Your task to perform on an android device: Open the calendar and show me this week's events? Image 0: 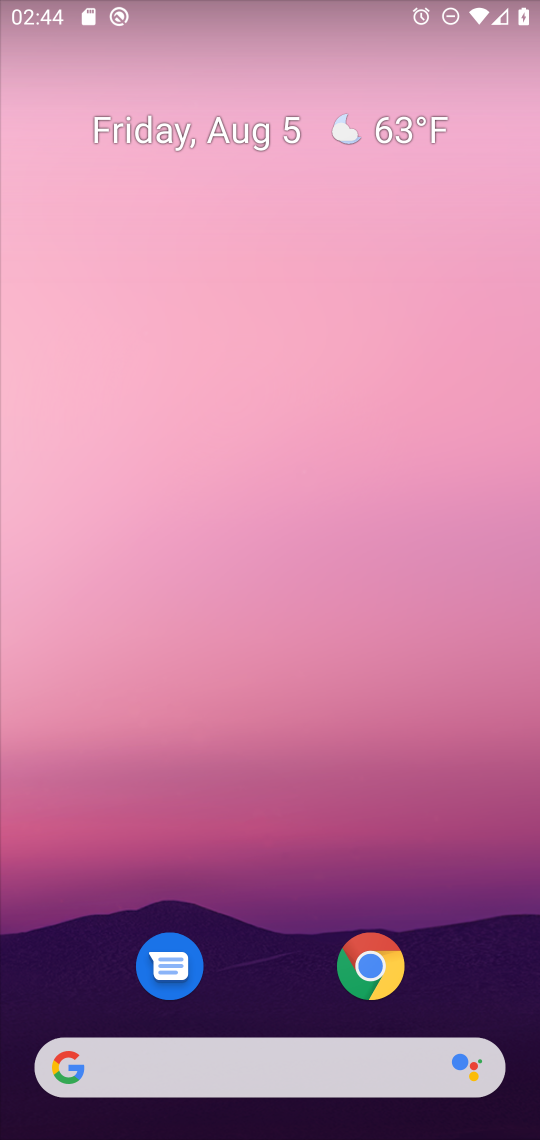
Step 0: drag from (313, 693) to (391, 101)
Your task to perform on an android device: Open the calendar and show me this week's events? Image 1: 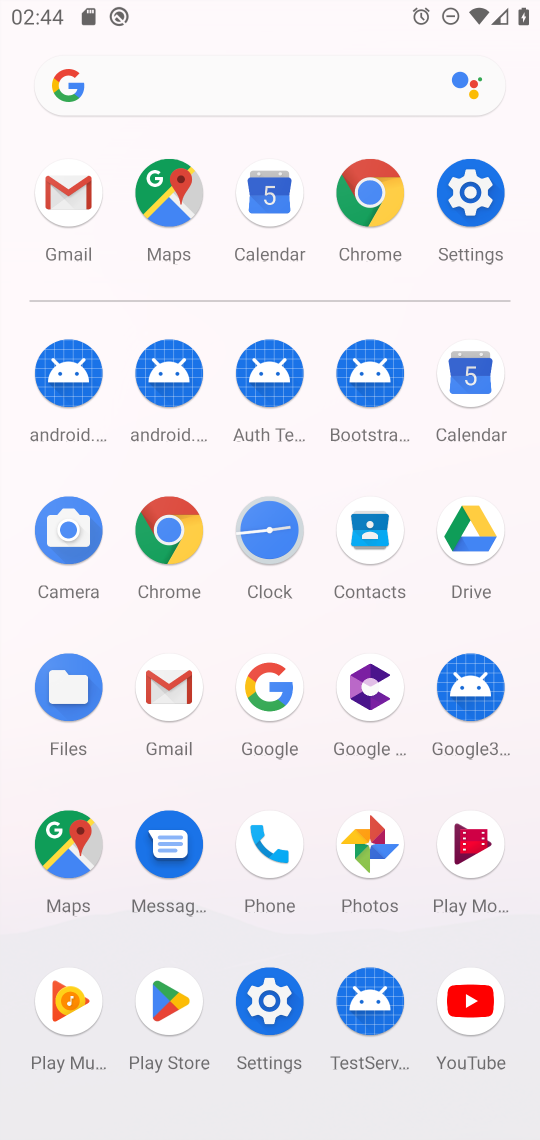
Step 1: click (276, 188)
Your task to perform on an android device: Open the calendar and show me this week's events? Image 2: 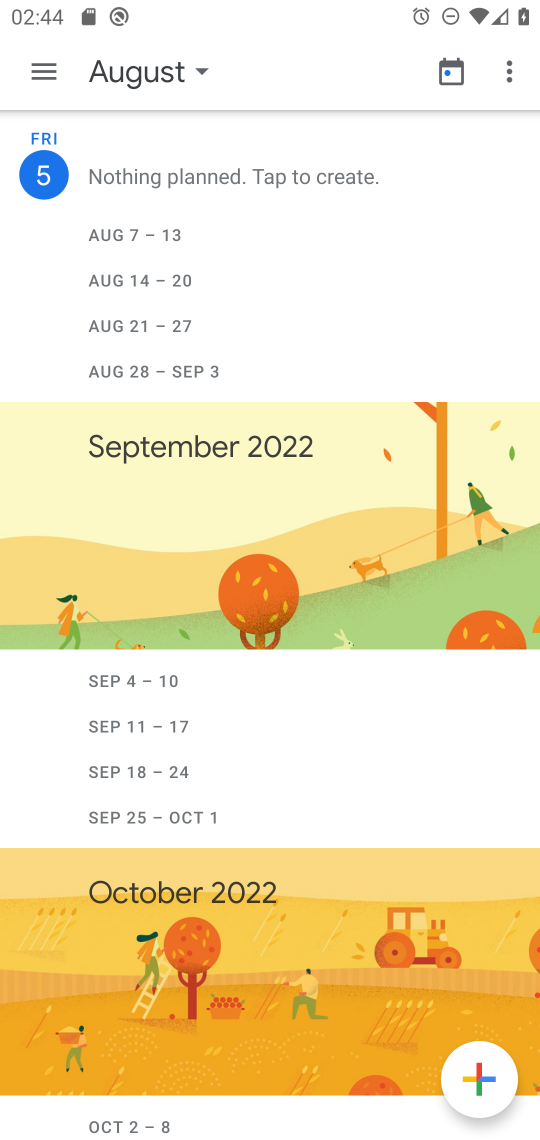
Step 2: click (40, 61)
Your task to perform on an android device: Open the calendar and show me this week's events? Image 3: 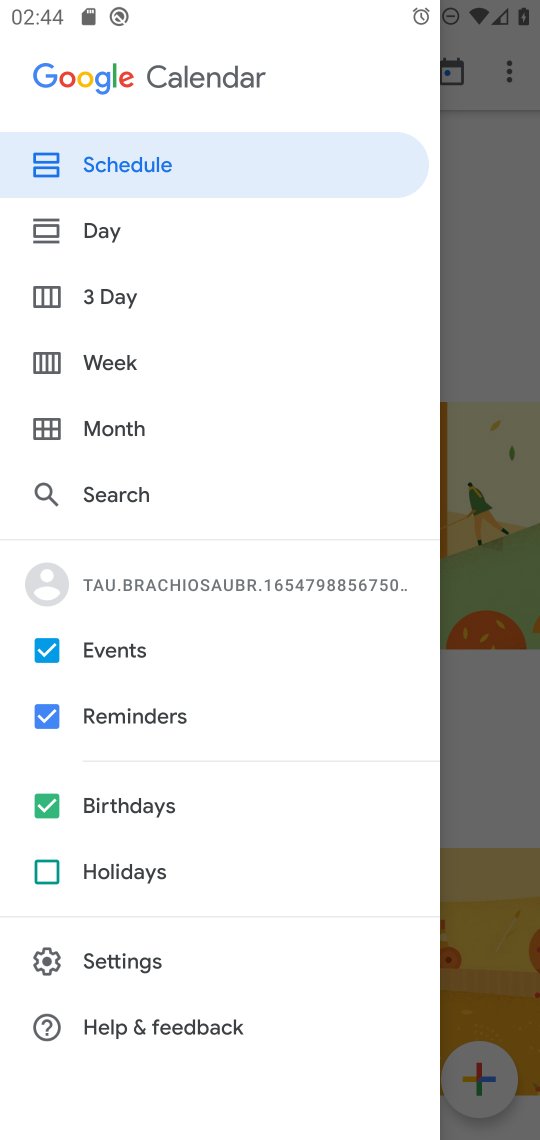
Step 3: click (48, 369)
Your task to perform on an android device: Open the calendar and show me this week's events? Image 4: 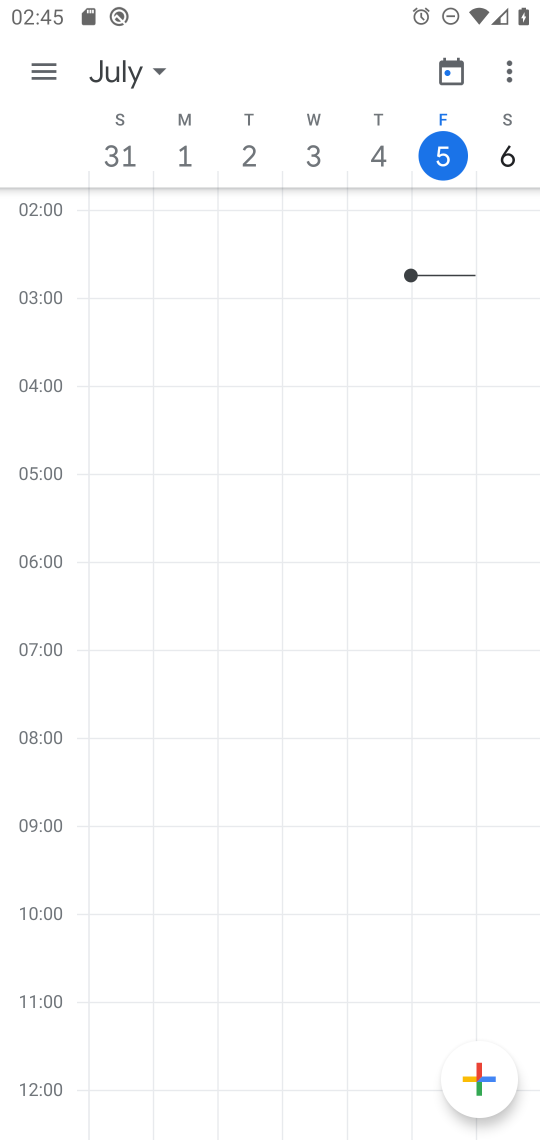
Step 4: task complete